Your task to perform on an android device: all mails in gmail Image 0: 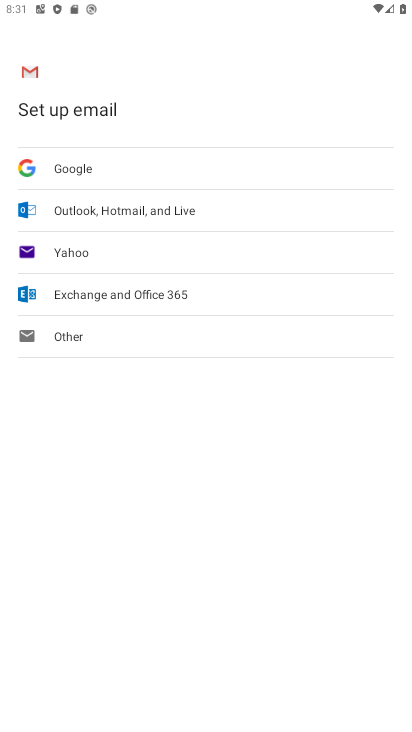
Step 0: press home button
Your task to perform on an android device: all mails in gmail Image 1: 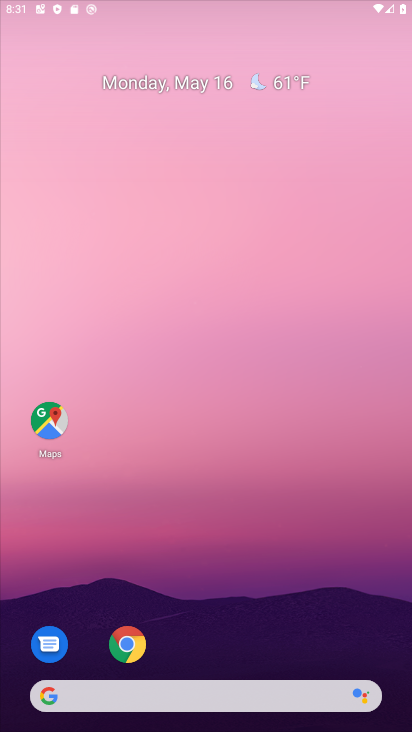
Step 1: drag from (185, 623) to (156, 137)
Your task to perform on an android device: all mails in gmail Image 2: 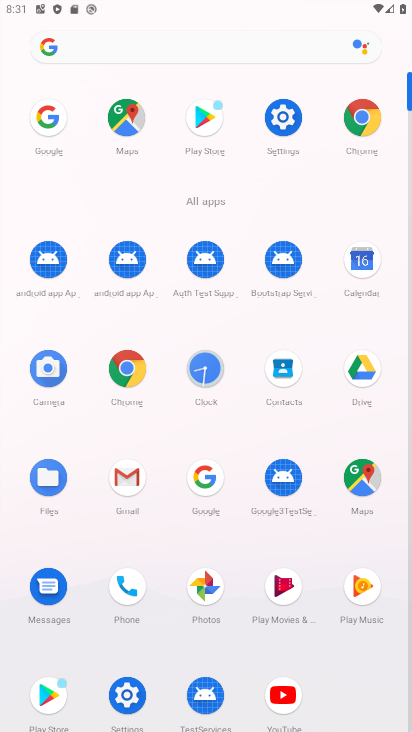
Step 2: click (128, 477)
Your task to perform on an android device: all mails in gmail Image 3: 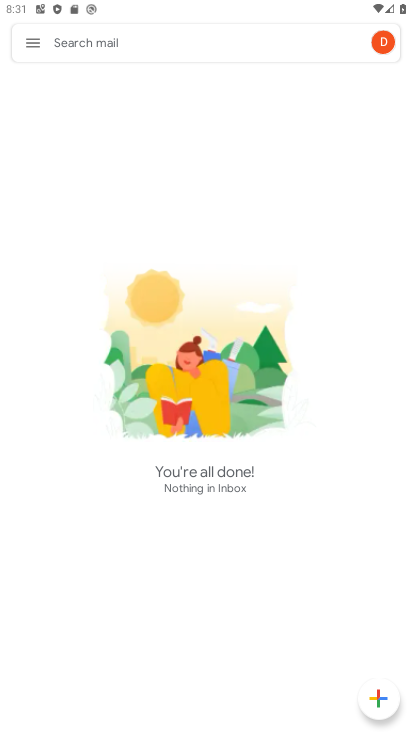
Step 3: click (31, 41)
Your task to perform on an android device: all mails in gmail Image 4: 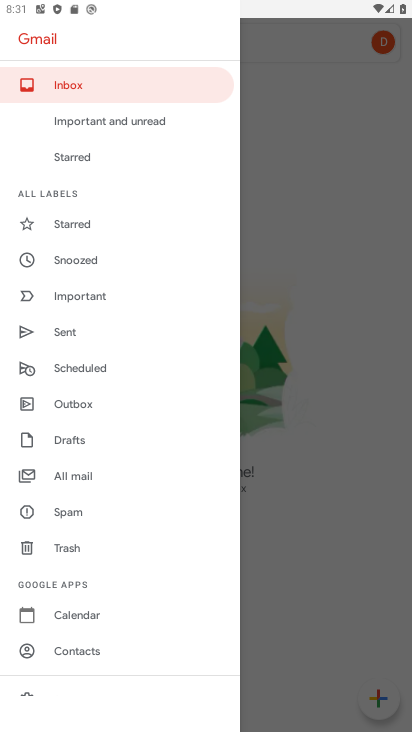
Step 4: click (74, 478)
Your task to perform on an android device: all mails in gmail Image 5: 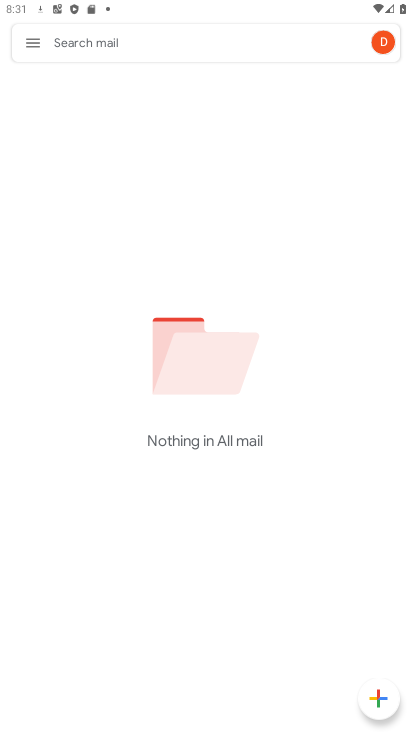
Step 5: task complete